Your task to perform on an android device: Open sound settings Image 0: 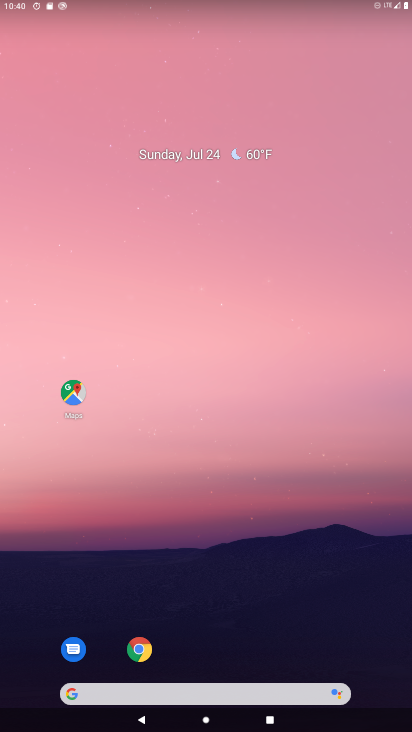
Step 0: click (242, 84)
Your task to perform on an android device: Open sound settings Image 1: 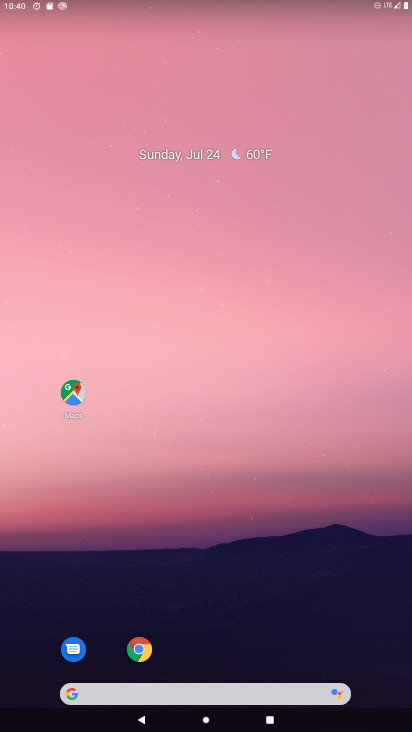
Step 1: drag from (337, 523) to (277, 0)
Your task to perform on an android device: Open sound settings Image 2: 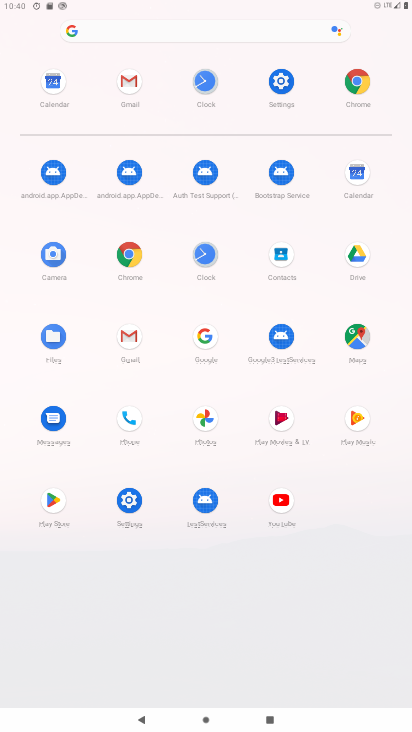
Step 2: click (281, 81)
Your task to perform on an android device: Open sound settings Image 3: 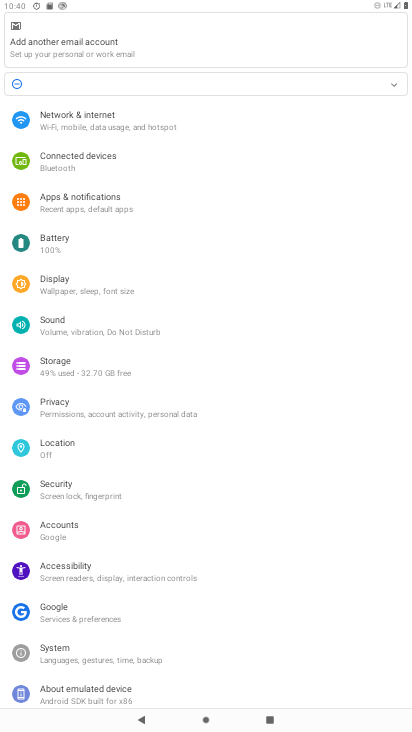
Step 3: click (73, 329)
Your task to perform on an android device: Open sound settings Image 4: 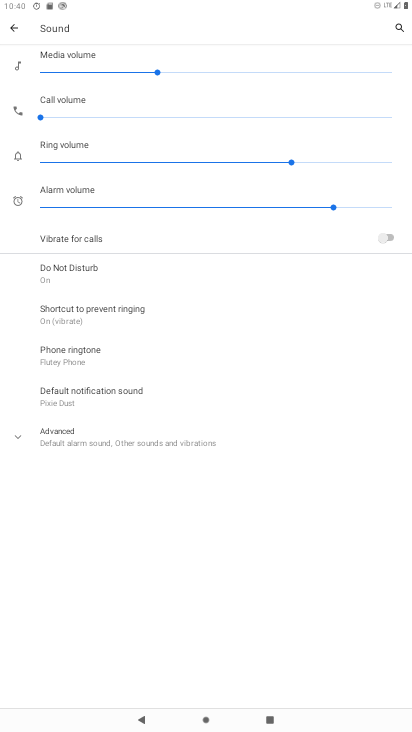
Step 4: task complete